Your task to perform on an android device: toggle priority inbox in the gmail app Image 0: 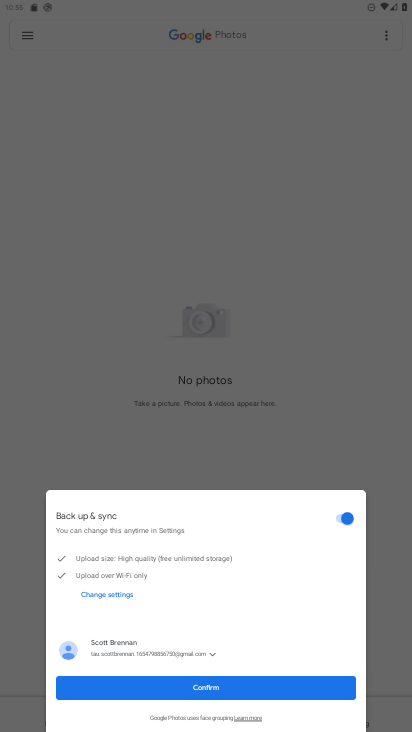
Step 0: press home button
Your task to perform on an android device: toggle priority inbox in the gmail app Image 1: 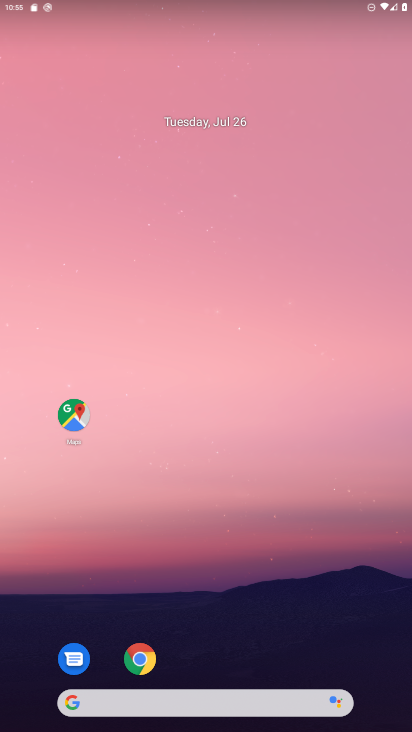
Step 1: drag from (392, 659) to (291, 0)
Your task to perform on an android device: toggle priority inbox in the gmail app Image 2: 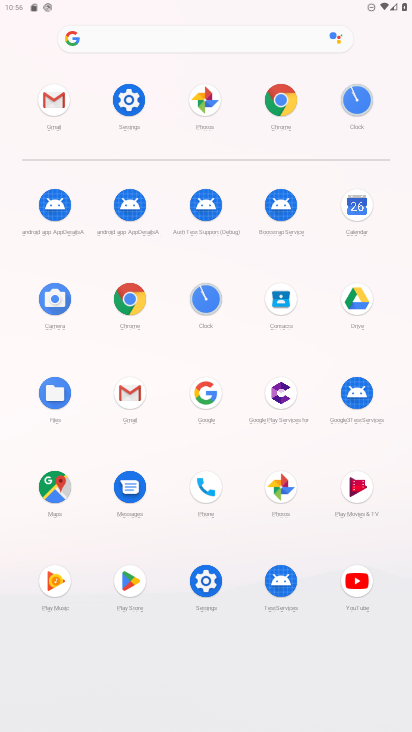
Step 2: click (133, 399)
Your task to perform on an android device: toggle priority inbox in the gmail app Image 3: 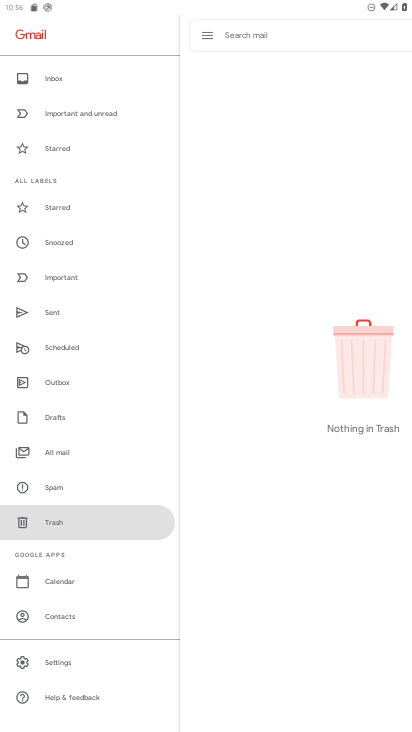
Step 3: click (65, 660)
Your task to perform on an android device: toggle priority inbox in the gmail app Image 4: 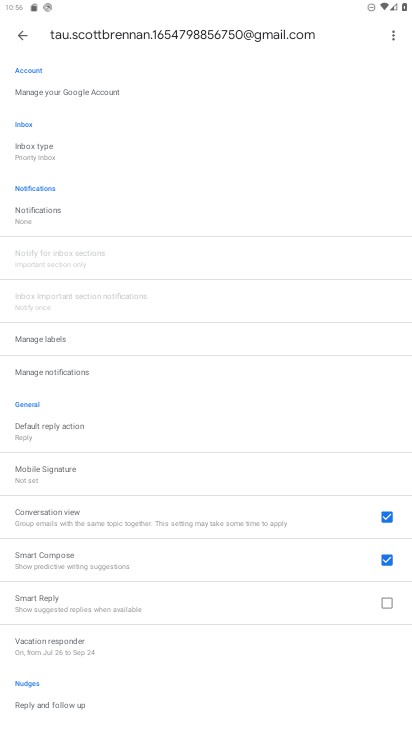
Step 4: click (39, 138)
Your task to perform on an android device: toggle priority inbox in the gmail app Image 5: 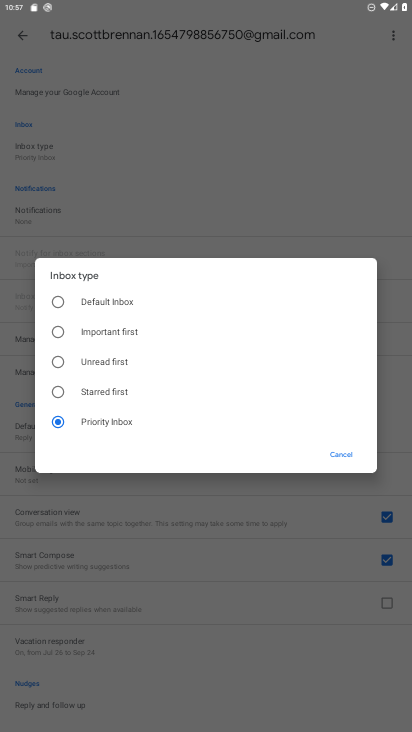
Step 5: click (62, 298)
Your task to perform on an android device: toggle priority inbox in the gmail app Image 6: 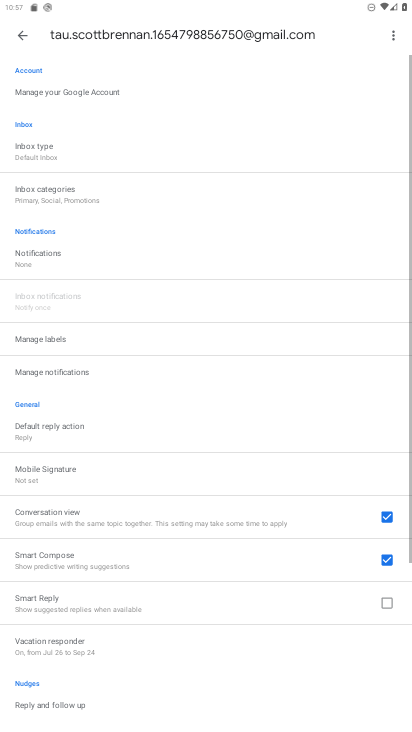
Step 6: task complete